Your task to perform on an android device: find snoozed emails in the gmail app Image 0: 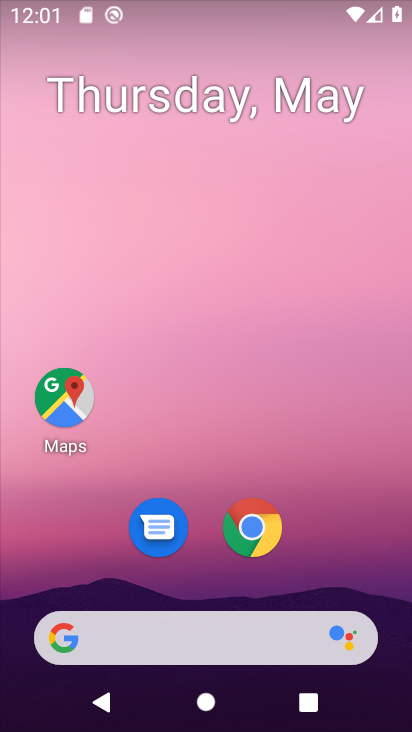
Step 0: drag from (219, 561) to (273, 101)
Your task to perform on an android device: find snoozed emails in the gmail app Image 1: 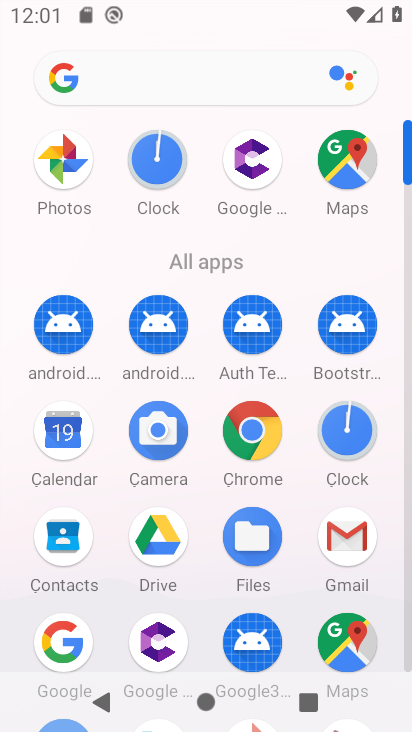
Step 1: click (342, 547)
Your task to perform on an android device: find snoozed emails in the gmail app Image 2: 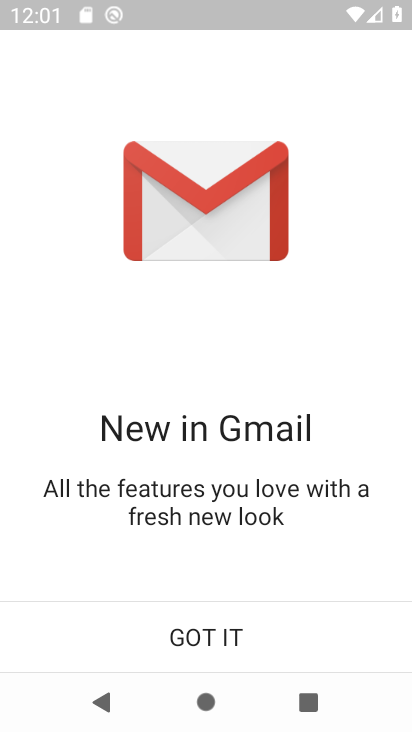
Step 2: click (227, 628)
Your task to perform on an android device: find snoozed emails in the gmail app Image 3: 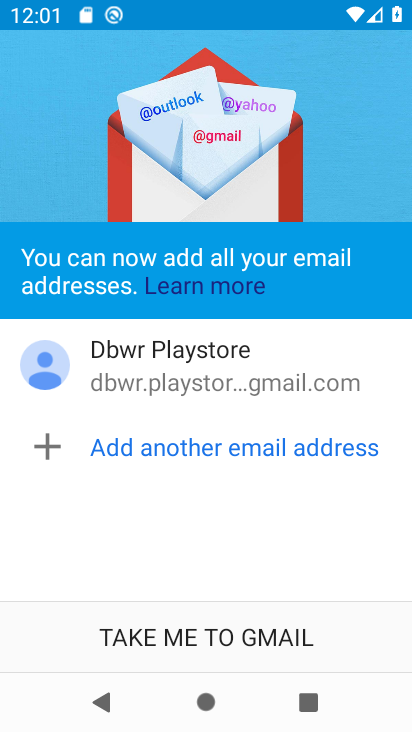
Step 3: click (212, 624)
Your task to perform on an android device: find snoozed emails in the gmail app Image 4: 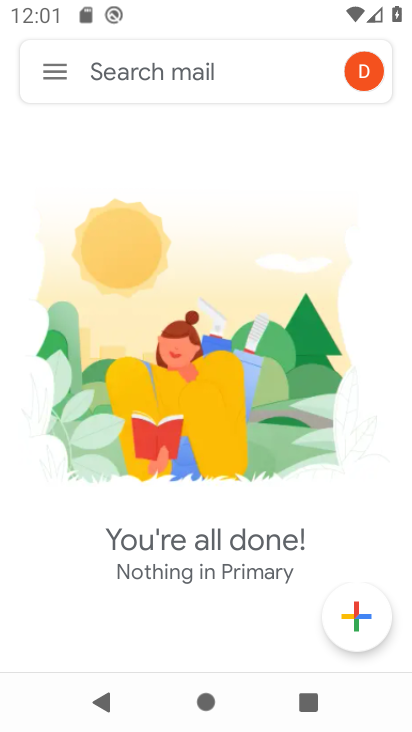
Step 4: click (48, 73)
Your task to perform on an android device: find snoozed emails in the gmail app Image 5: 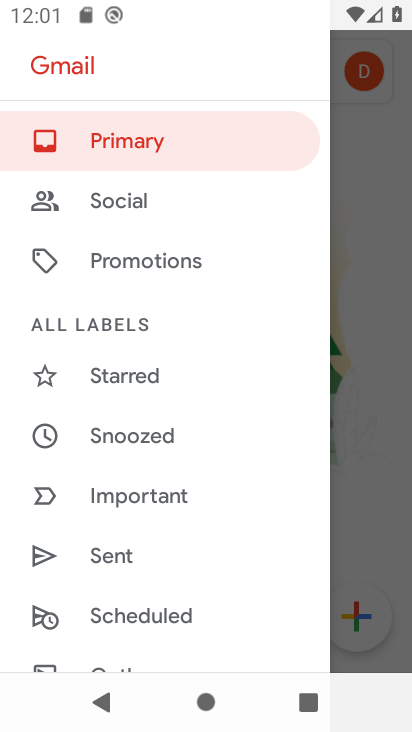
Step 5: click (158, 440)
Your task to perform on an android device: find snoozed emails in the gmail app Image 6: 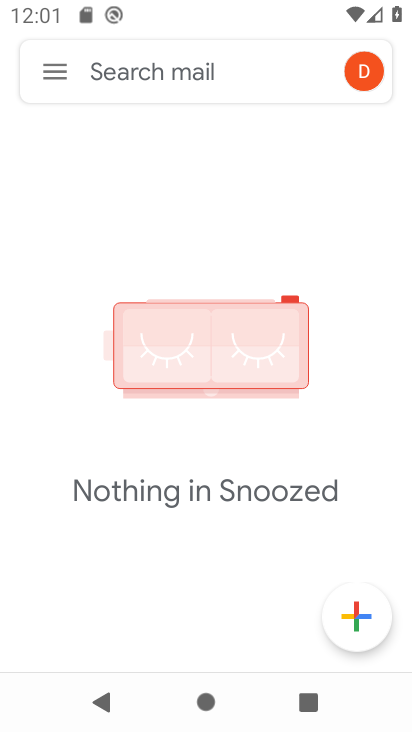
Step 6: task complete